Your task to perform on an android device: show emergency info Image 0: 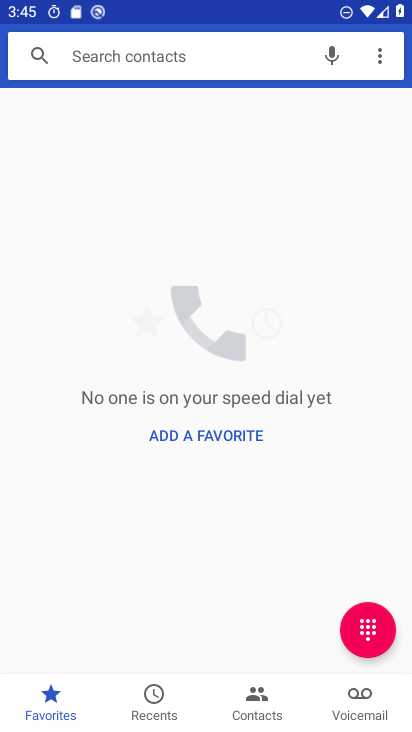
Step 0: press home button
Your task to perform on an android device: show emergency info Image 1: 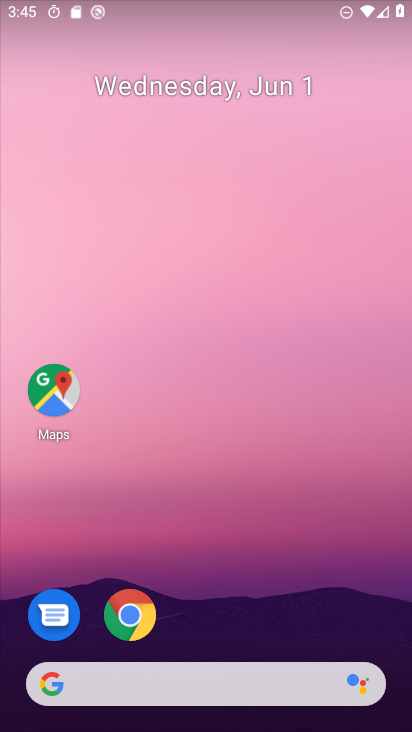
Step 1: drag from (231, 641) to (227, 91)
Your task to perform on an android device: show emergency info Image 2: 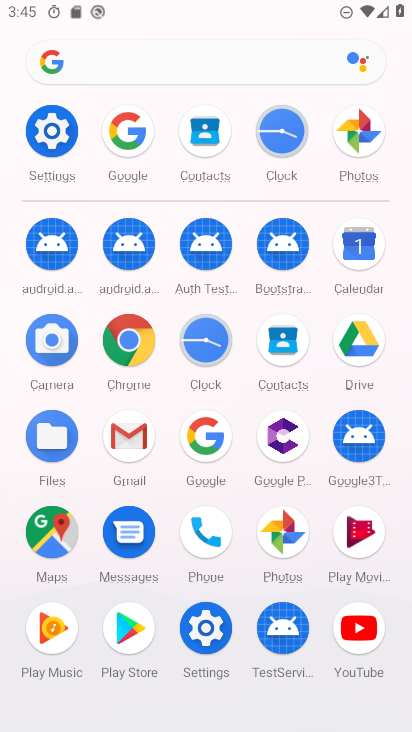
Step 2: click (197, 624)
Your task to perform on an android device: show emergency info Image 3: 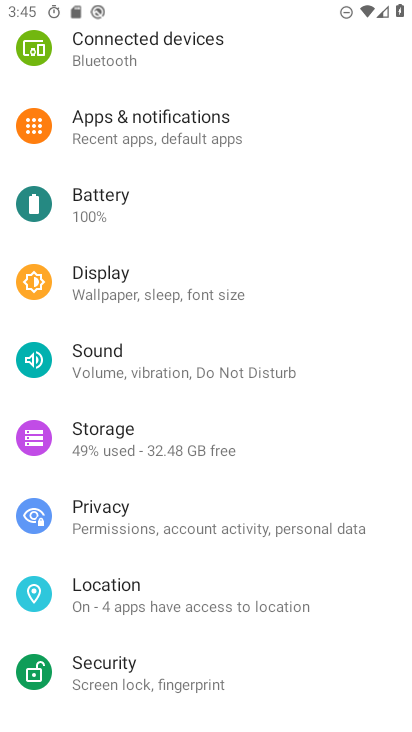
Step 3: drag from (184, 654) to (179, 77)
Your task to perform on an android device: show emergency info Image 4: 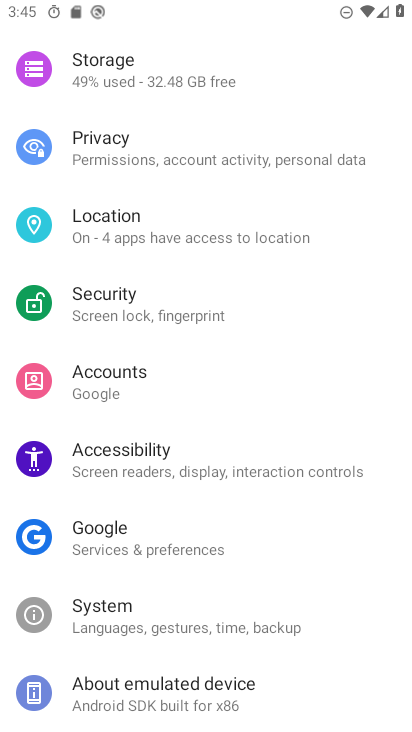
Step 4: click (185, 690)
Your task to perform on an android device: show emergency info Image 5: 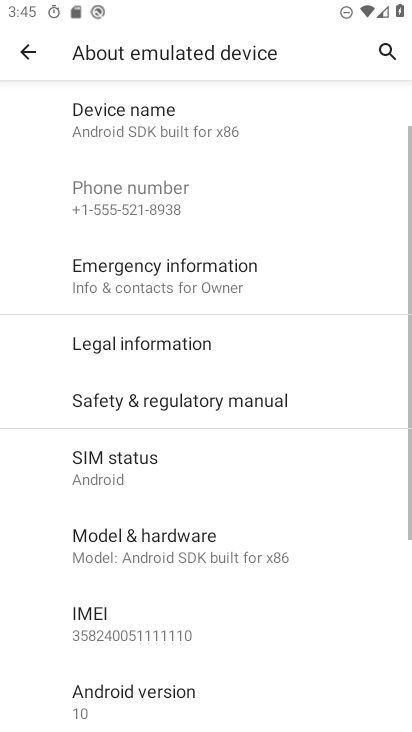
Step 5: click (202, 272)
Your task to perform on an android device: show emergency info Image 6: 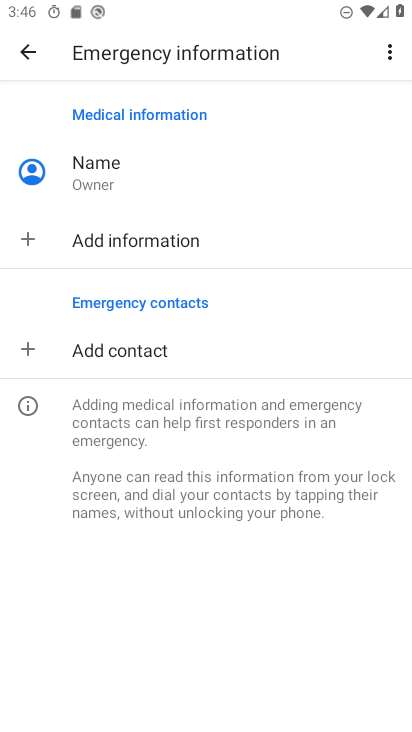
Step 6: task complete